Your task to perform on an android device: Open internet settings Image 0: 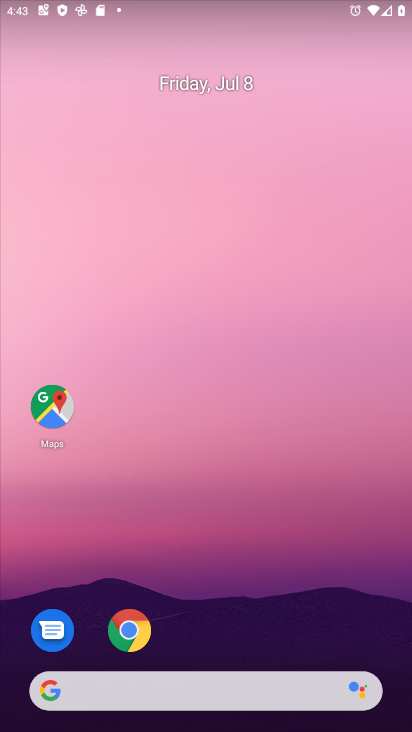
Step 0: drag from (229, 679) to (225, 97)
Your task to perform on an android device: Open internet settings Image 1: 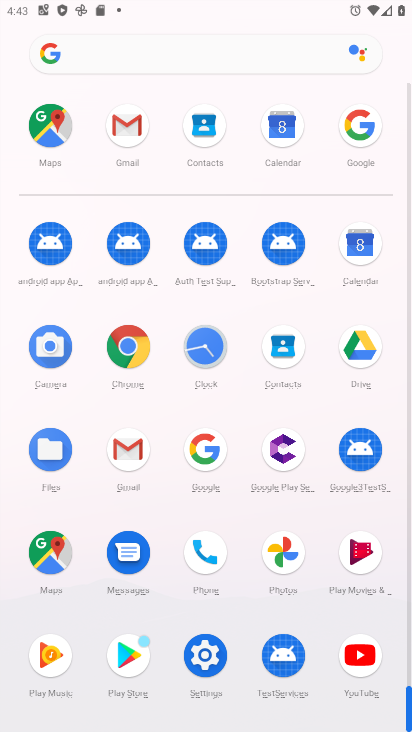
Step 1: click (204, 654)
Your task to perform on an android device: Open internet settings Image 2: 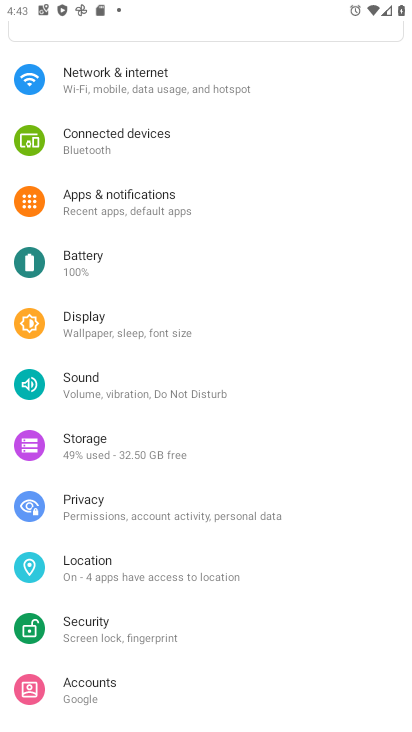
Step 2: click (103, 82)
Your task to perform on an android device: Open internet settings Image 3: 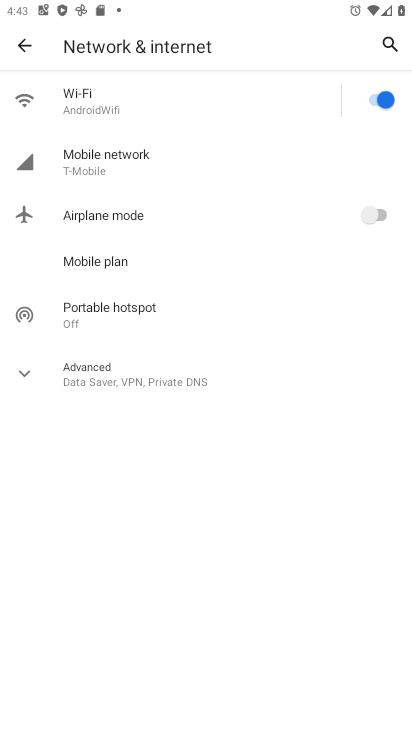
Step 3: task complete